Your task to perform on an android device: toggle priority inbox in the gmail app Image 0: 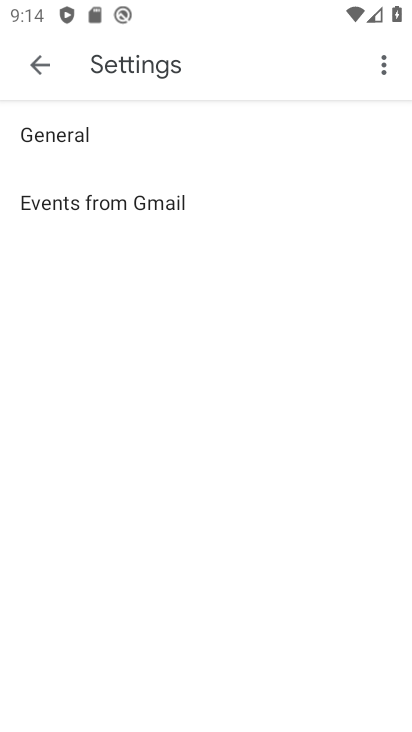
Step 0: press home button
Your task to perform on an android device: toggle priority inbox in the gmail app Image 1: 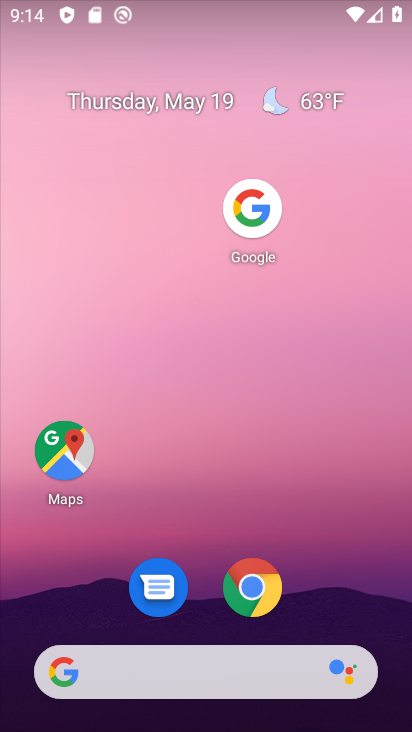
Step 1: drag from (205, 647) to (296, 87)
Your task to perform on an android device: toggle priority inbox in the gmail app Image 2: 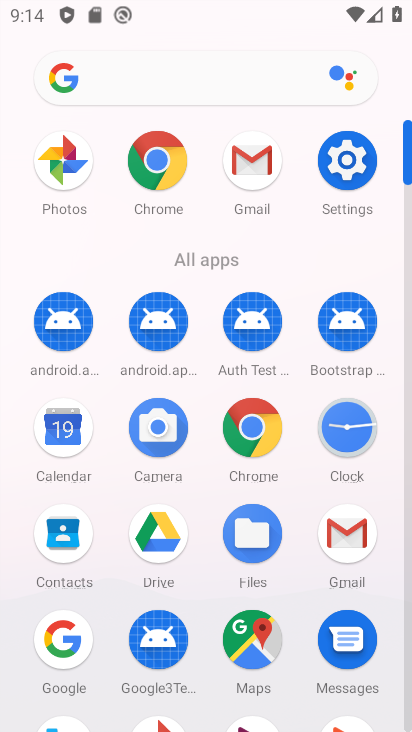
Step 2: click (358, 534)
Your task to perform on an android device: toggle priority inbox in the gmail app Image 3: 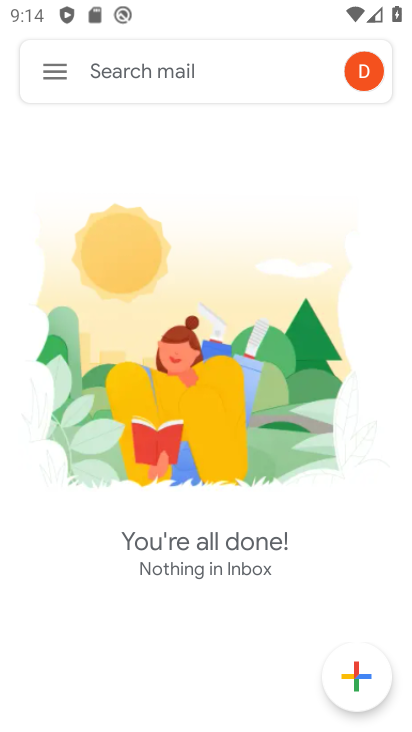
Step 3: click (51, 68)
Your task to perform on an android device: toggle priority inbox in the gmail app Image 4: 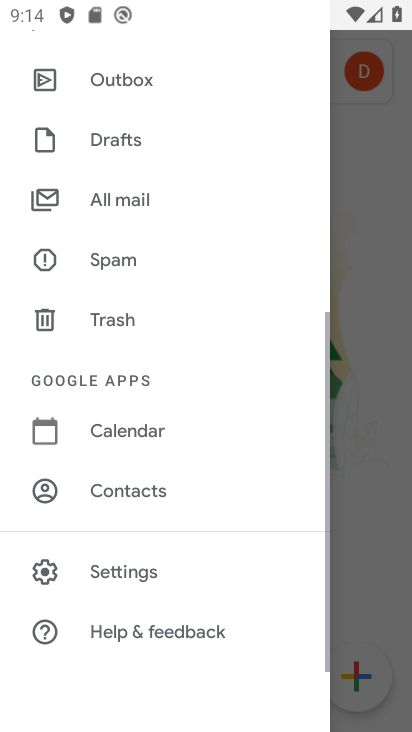
Step 4: click (172, 580)
Your task to perform on an android device: toggle priority inbox in the gmail app Image 5: 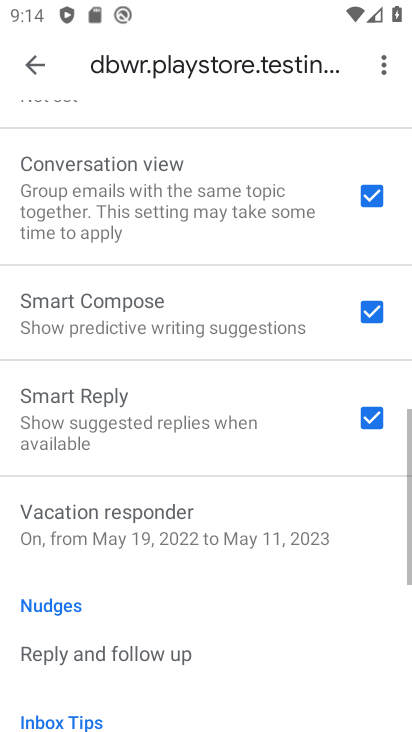
Step 5: drag from (188, 560) to (170, 70)
Your task to perform on an android device: toggle priority inbox in the gmail app Image 6: 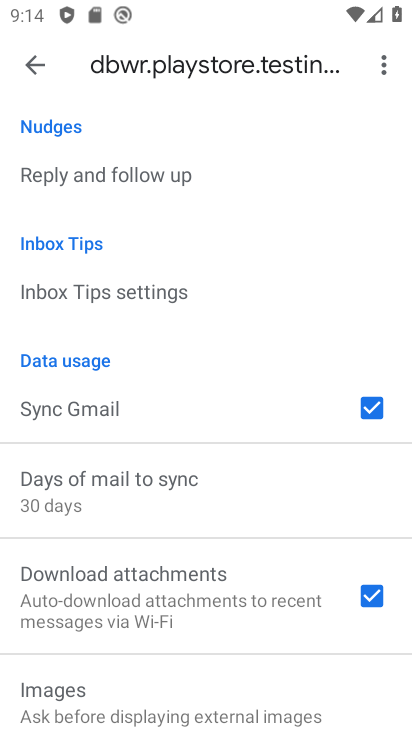
Step 6: drag from (260, 607) to (260, 145)
Your task to perform on an android device: toggle priority inbox in the gmail app Image 7: 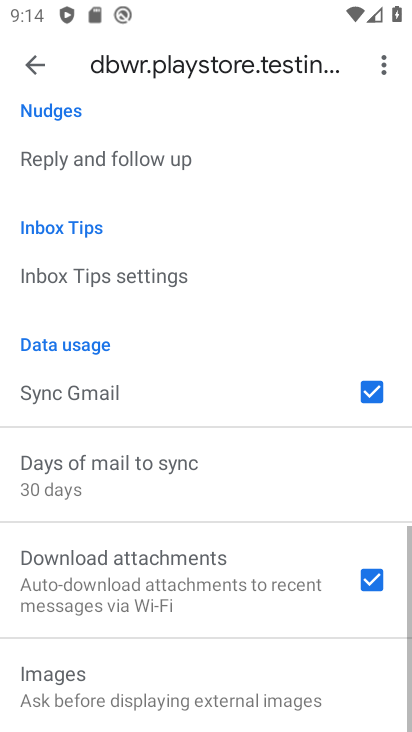
Step 7: drag from (253, 154) to (224, 598)
Your task to perform on an android device: toggle priority inbox in the gmail app Image 8: 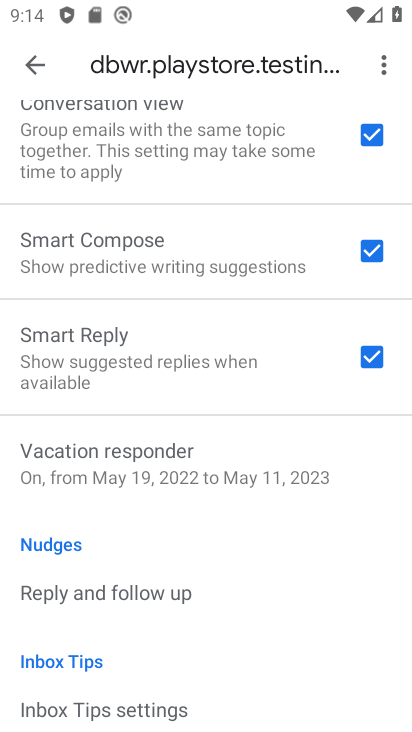
Step 8: drag from (199, 242) to (142, 695)
Your task to perform on an android device: toggle priority inbox in the gmail app Image 9: 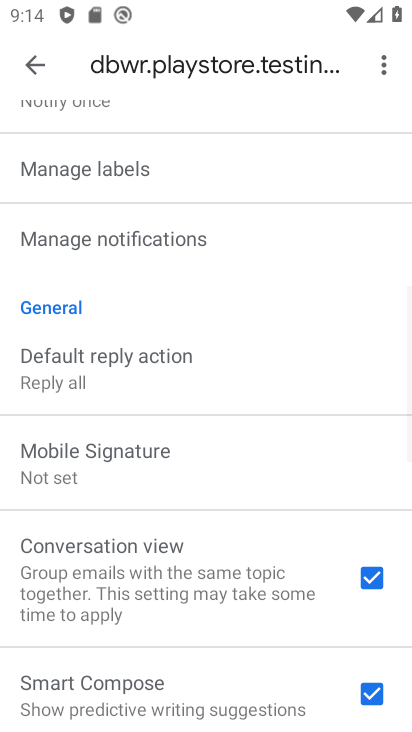
Step 9: drag from (191, 282) to (186, 630)
Your task to perform on an android device: toggle priority inbox in the gmail app Image 10: 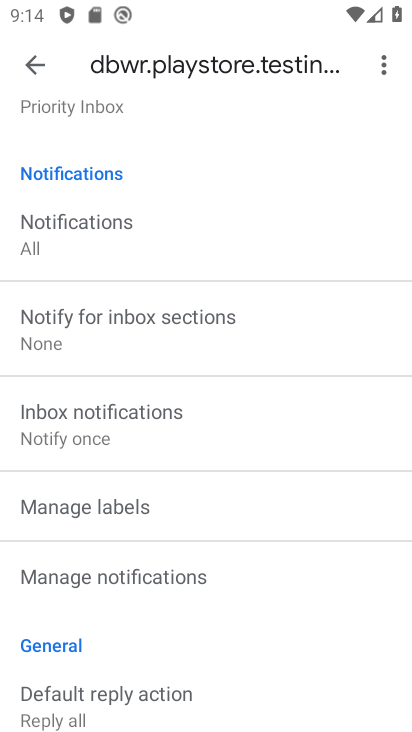
Step 10: click (123, 118)
Your task to perform on an android device: toggle priority inbox in the gmail app Image 11: 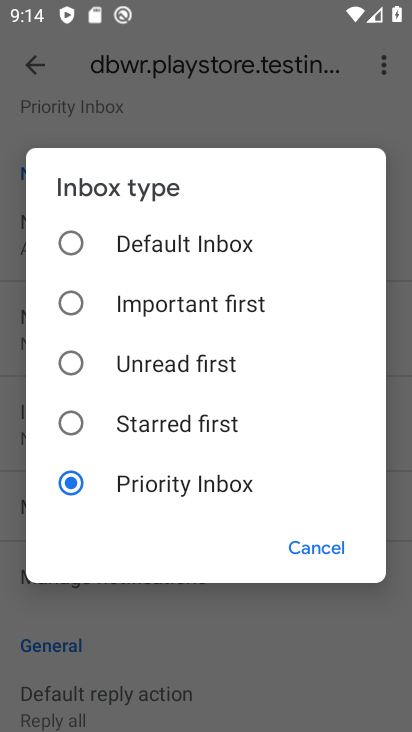
Step 11: click (151, 490)
Your task to perform on an android device: toggle priority inbox in the gmail app Image 12: 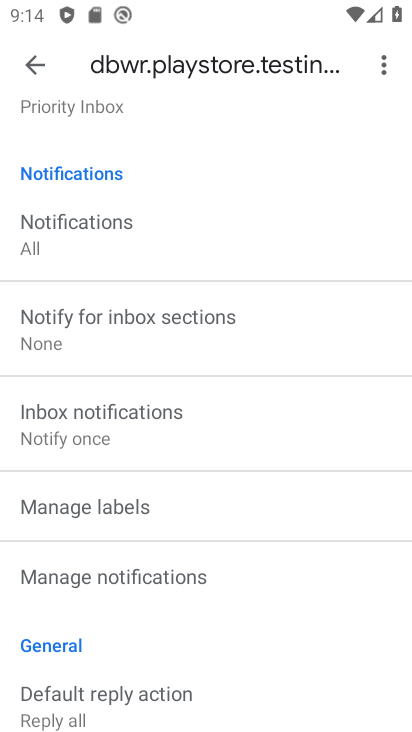
Step 12: click (95, 108)
Your task to perform on an android device: toggle priority inbox in the gmail app Image 13: 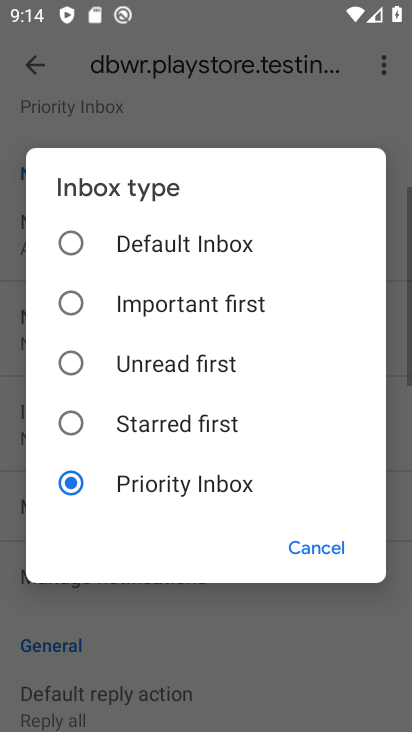
Step 13: click (110, 419)
Your task to perform on an android device: toggle priority inbox in the gmail app Image 14: 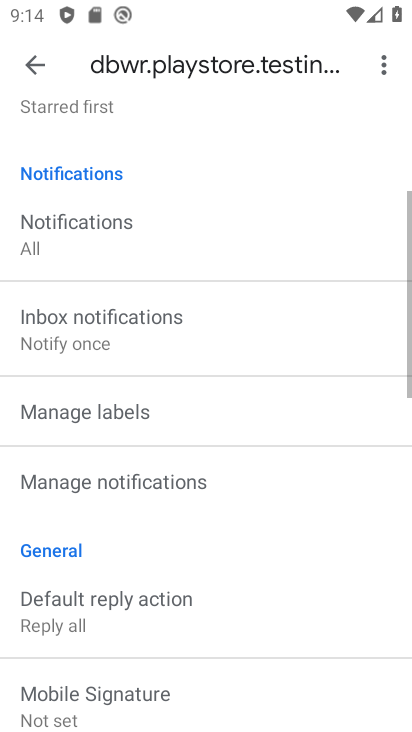
Step 14: task complete